Your task to perform on an android device: Open the calendar and show me this week's events? Image 0: 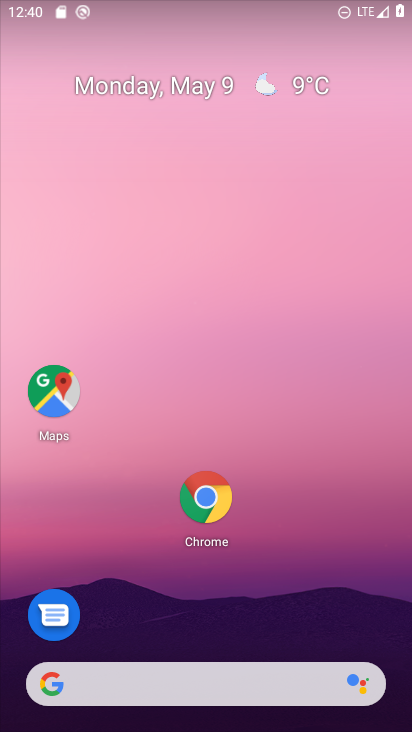
Step 0: drag from (336, 614) to (297, 107)
Your task to perform on an android device: Open the calendar and show me this week's events? Image 1: 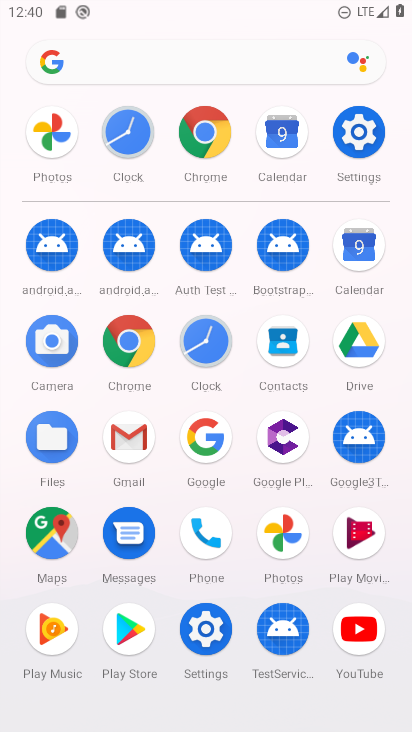
Step 1: click (357, 255)
Your task to perform on an android device: Open the calendar and show me this week's events? Image 2: 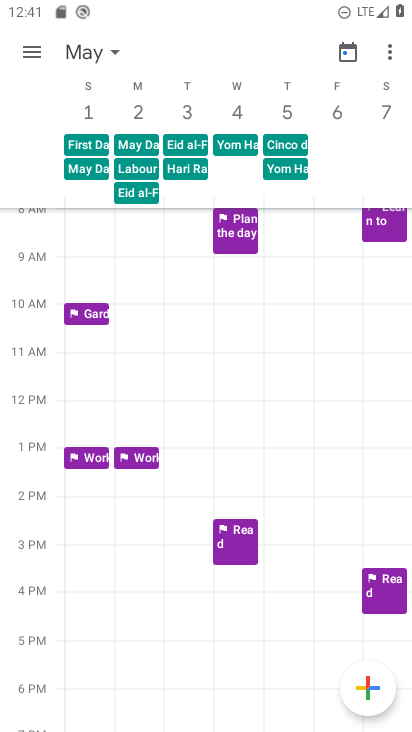
Step 2: click (92, 56)
Your task to perform on an android device: Open the calendar and show me this week's events? Image 3: 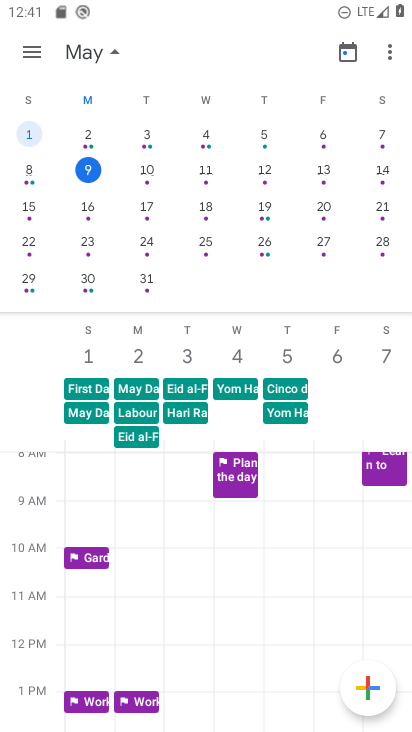
Step 3: click (86, 179)
Your task to perform on an android device: Open the calendar and show me this week's events? Image 4: 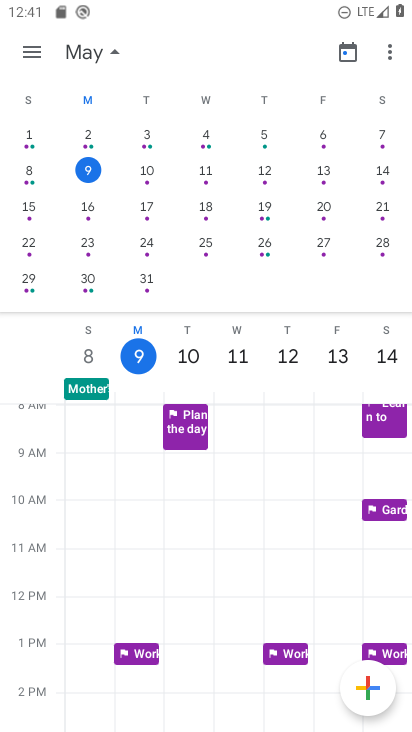
Step 4: click (76, 47)
Your task to perform on an android device: Open the calendar and show me this week's events? Image 5: 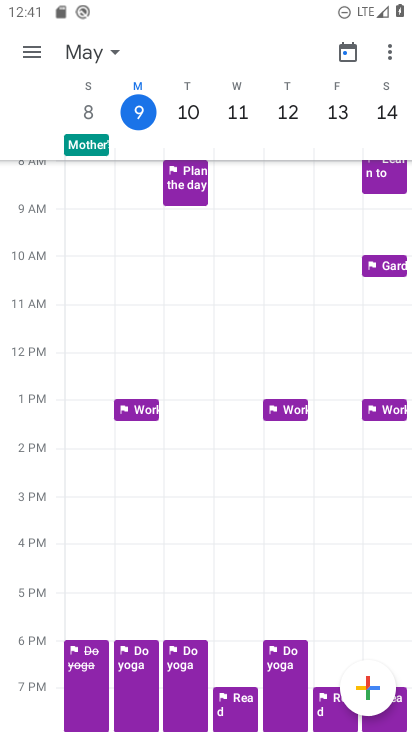
Step 5: task complete